Your task to perform on an android device: change the clock style Image 0: 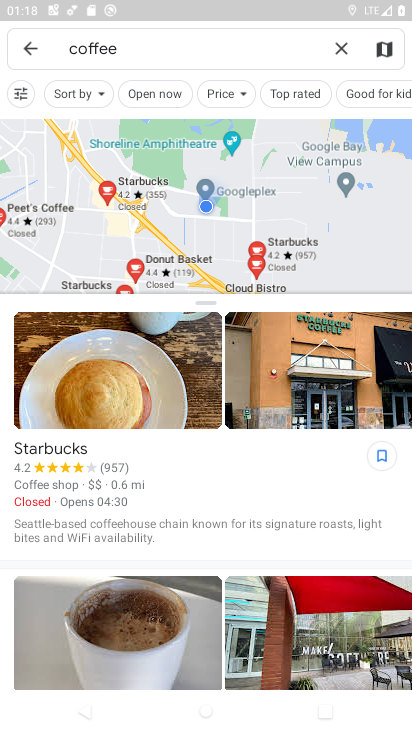
Step 0: press home button
Your task to perform on an android device: change the clock style Image 1: 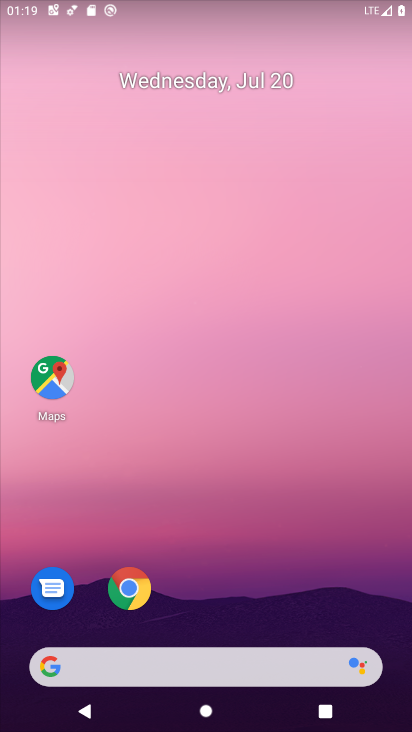
Step 1: drag from (303, 594) to (280, 179)
Your task to perform on an android device: change the clock style Image 2: 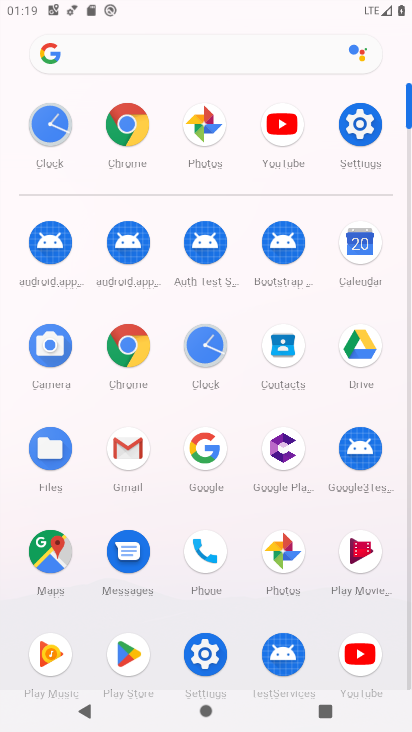
Step 2: click (202, 348)
Your task to perform on an android device: change the clock style Image 3: 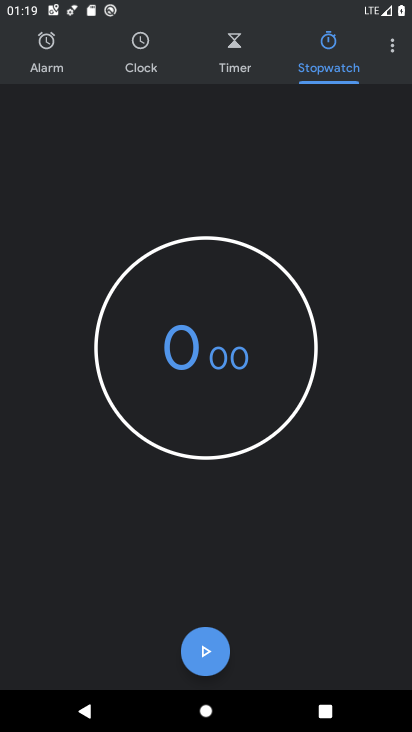
Step 3: click (393, 37)
Your task to perform on an android device: change the clock style Image 4: 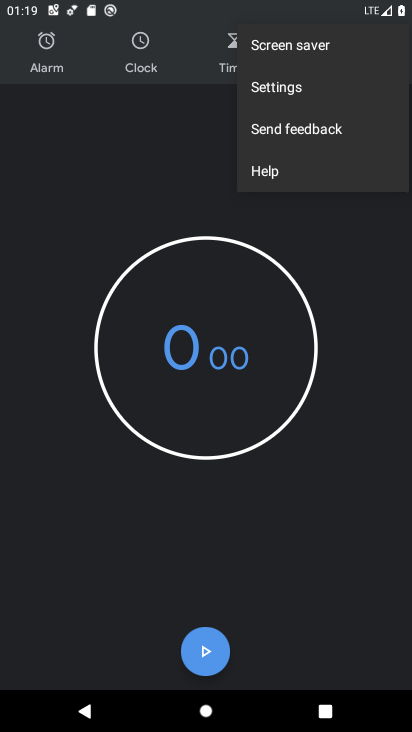
Step 4: click (294, 87)
Your task to perform on an android device: change the clock style Image 5: 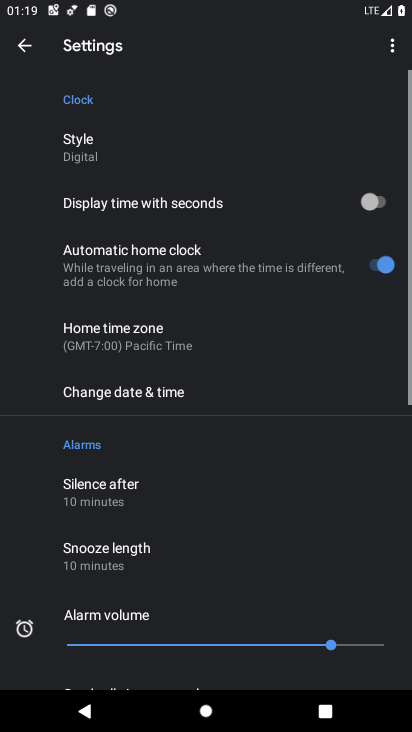
Step 5: click (97, 149)
Your task to perform on an android device: change the clock style Image 6: 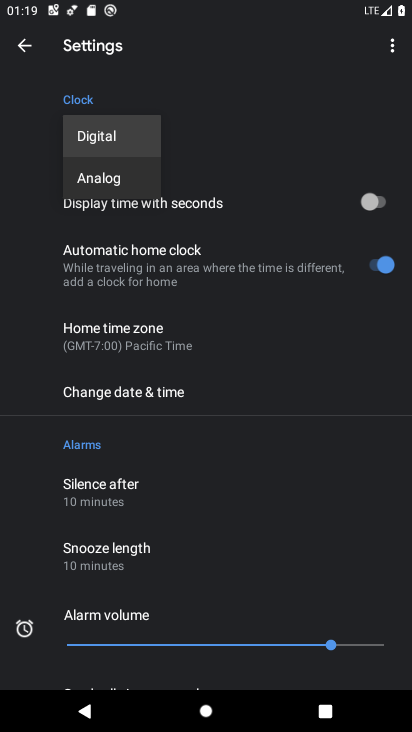
Step 6: click (116, 180)
Your task to perform on an android device: change the clock style Image 7: 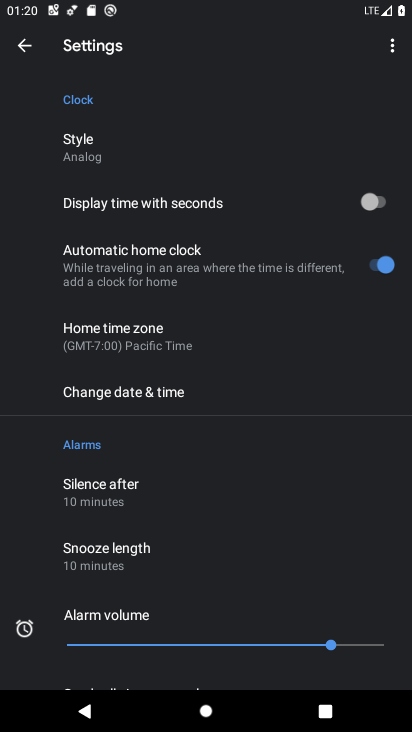
Step 7: task complete